Your task to perform on an android device: toggle pop-ups in chrome Image 0: 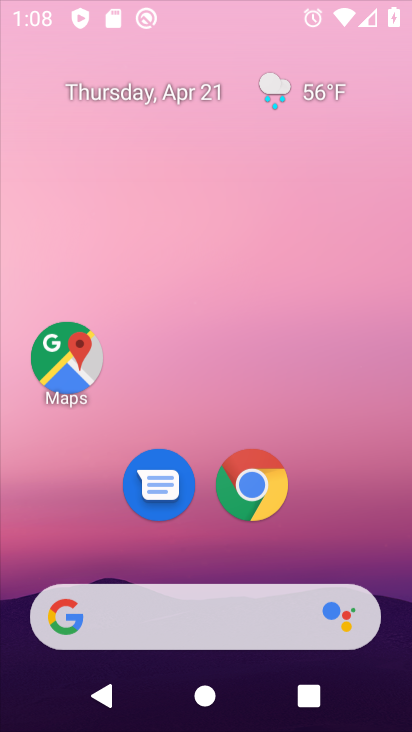
Step 0: click (58, 375)
Your task to perform on an android device: toggle pop-ups in chrome Image 1: 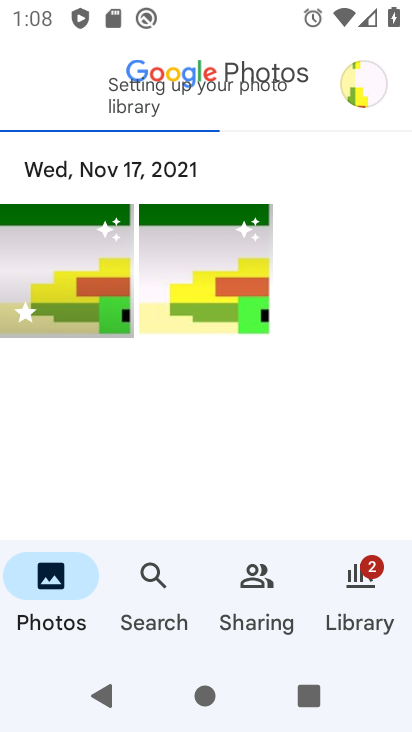
Step 1: press home button
Your task to perform on an android device: toggle pop-ups in chrome Image 2: 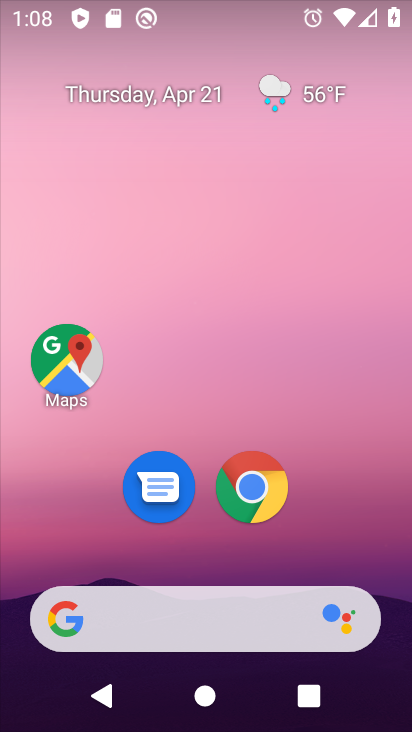
Step 2: click (259, 495)
Your task to perform on an android device: toggle pop-ups in chrome Image 3: 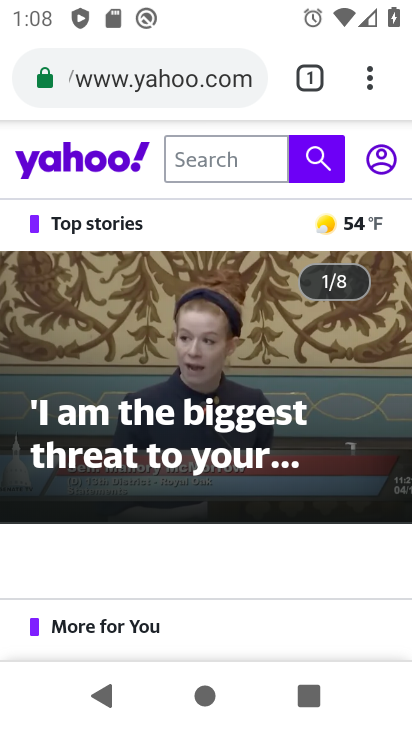
Step 3: drag from (368, 89) to (121, 548)
Your task to perform on an android device: toggle pop-ups in chrome Image 4: 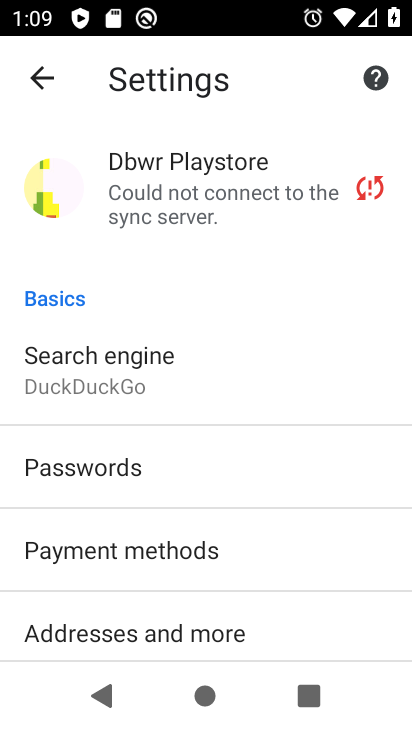
Step 4: drag from (156, 650) to (158, 243)
Your task to perform on an android device: toggle pop-ups in chrome Image 5: 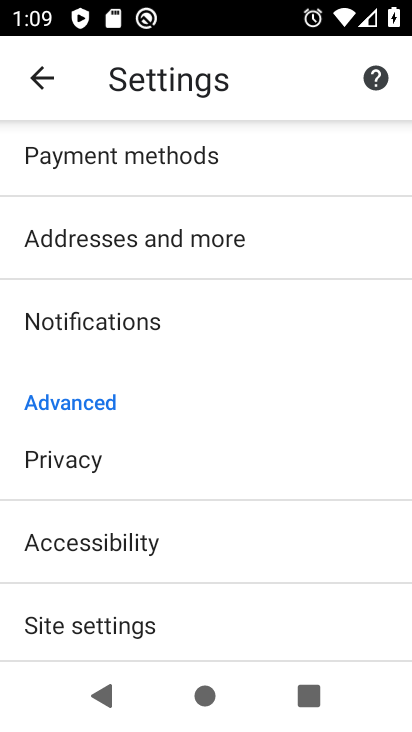
Step 5: drag from (221, 574) to (207, 341)
Your task to perform on an android device: toggle pop-ups in chrome Image 6: 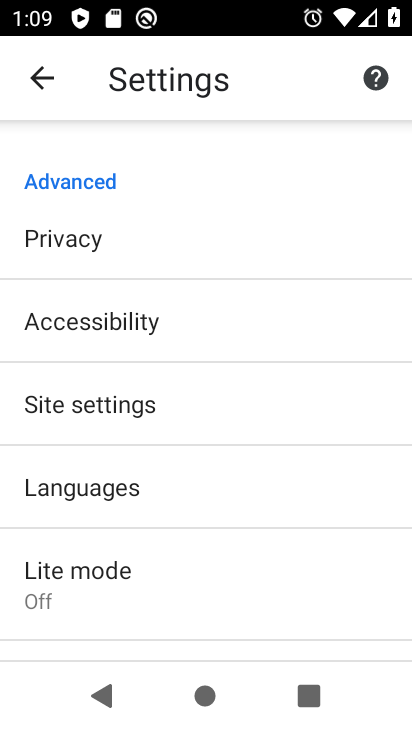
Step 6: click (107, 409)
Your task to perform on an android device: toggle pop-ups in chrome Image 7: 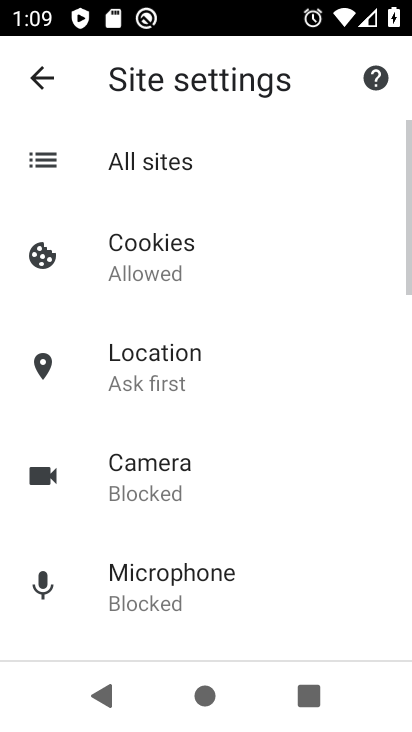
Step 7: drag from (212, 556) to (245, 250)
Your task to perform on an android device: toggle pop-ups in chrome Image 8: 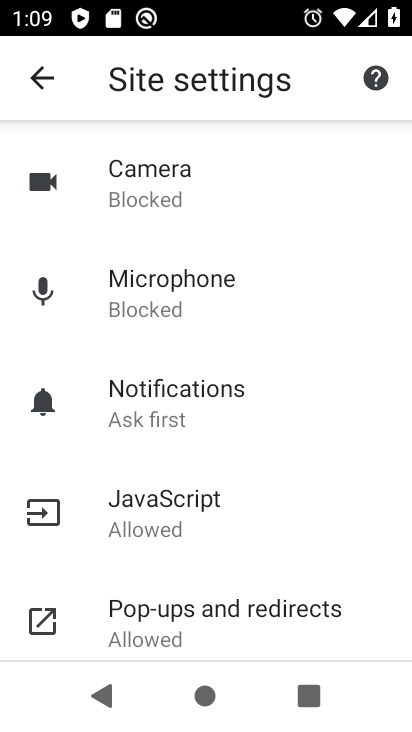
Step 8: click (183, 621)
Your task to perform on an android device: toggle pop-ups in chrome Image 9: 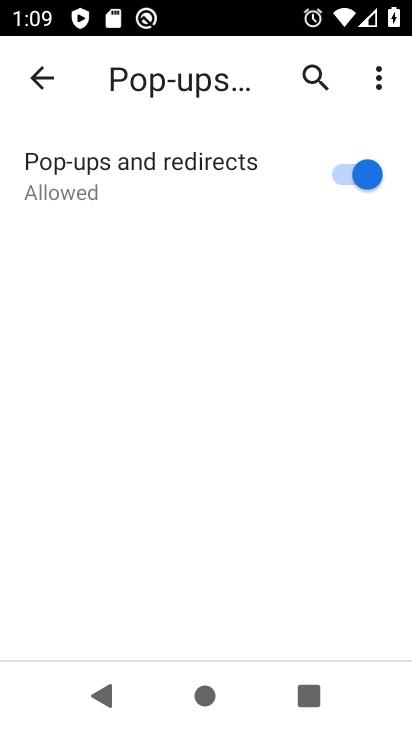
Step 9: click (363, 180)
Your task to perform on an android device: toggle pop-ups in chrome Image 10: 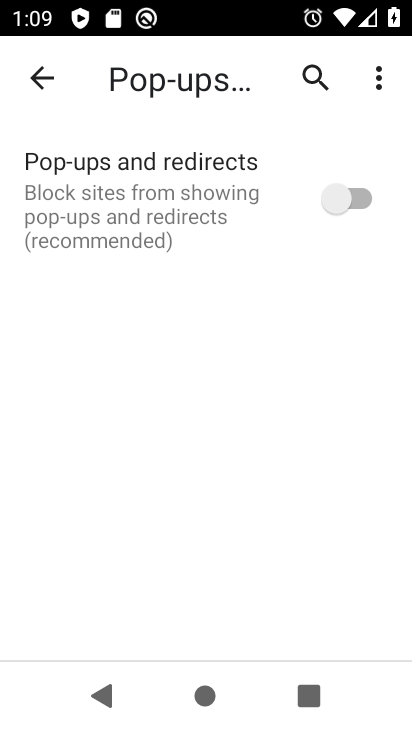
Step 10: task complete